Your task to perform on an android device: When is my next meeting? Image 0: 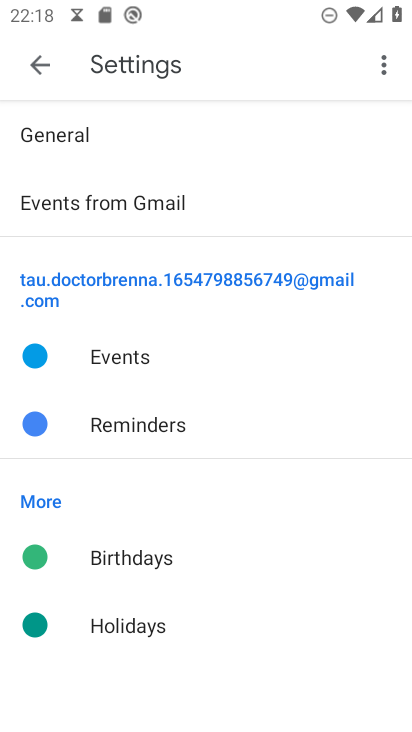
Step 0: press home button
Your task to perform on an android device: When is my next meeting? Image 1: 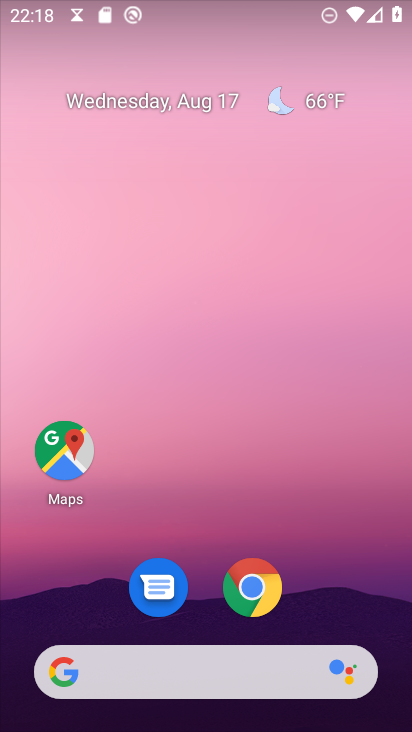
Step 1: drag from (18, 702) to (284, 204)
Your task to perform on an android device: When is my next meeting? Image 2: 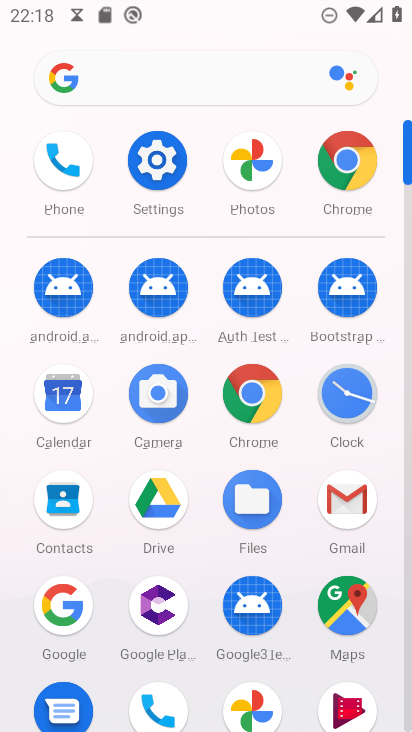
Step 2: click (68, 388)
Your task to perform on an android device: When is my next meeting? Image 3: 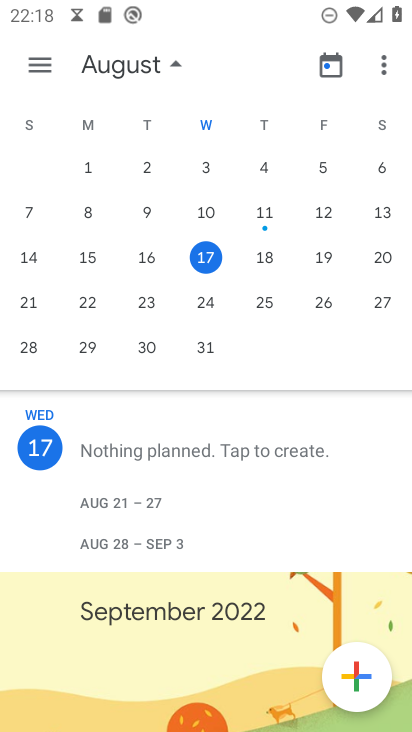
Step 3: task complete